Your task to perform on an android device: Open privacy settings Image 0: 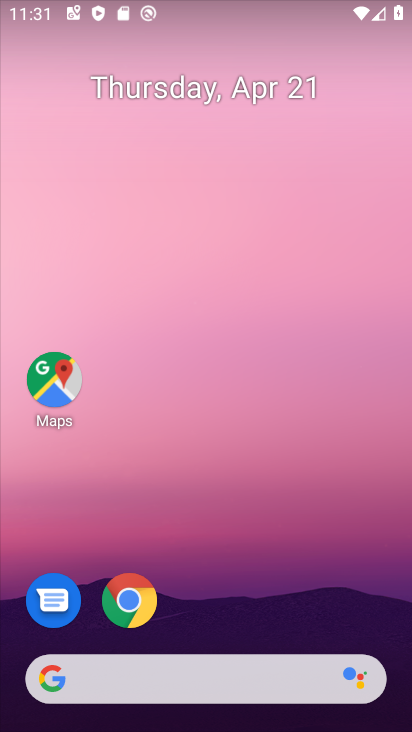
Step 0: drag from (214, 592) to (305, 17)
Your task to perform on an android device: Open privacy settings Image 1: 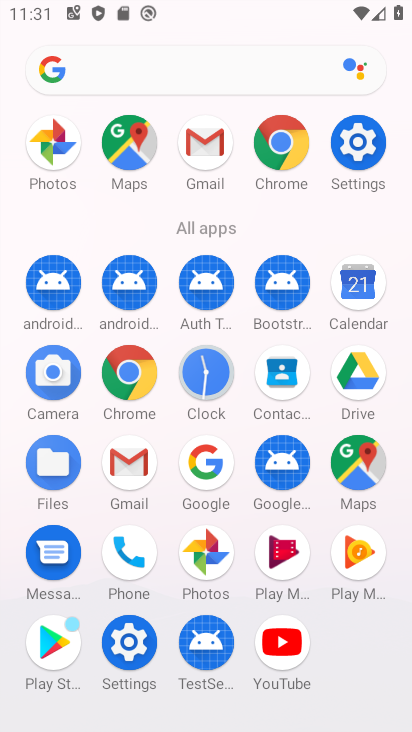
Step 1: click (135, 641)
Your task to perform on an android device: Open privacy settings Image 2: 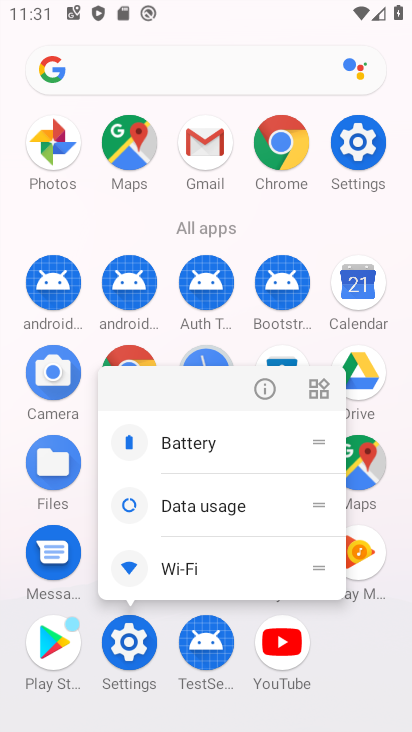
Step 2: click (132, 645)
Your task to perform on an android device: Open privacy settings Image 3: 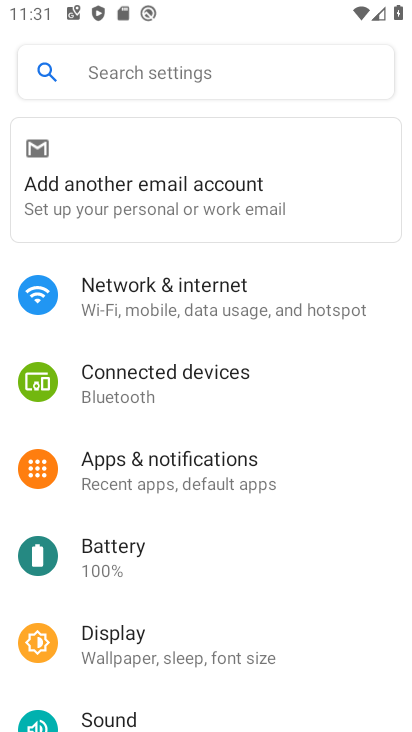
Step 3: drag from (202, 562) to (287, 175)
Your task to perform on an android device: Open privacy settings Image 4: 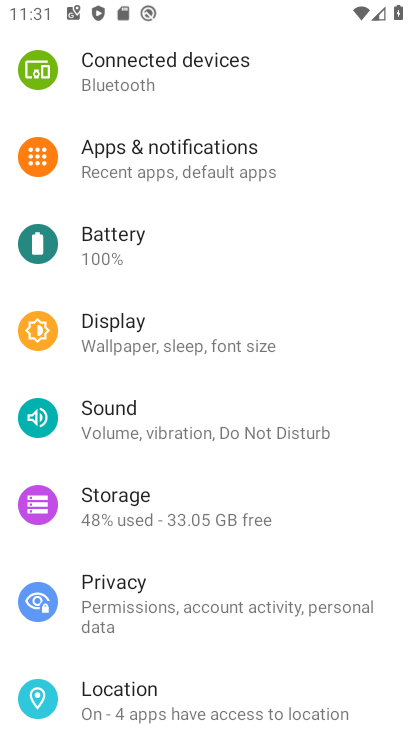
Step 4: click (157, 577)
Your task to perform on an android device: Open privacy settings Image 5: 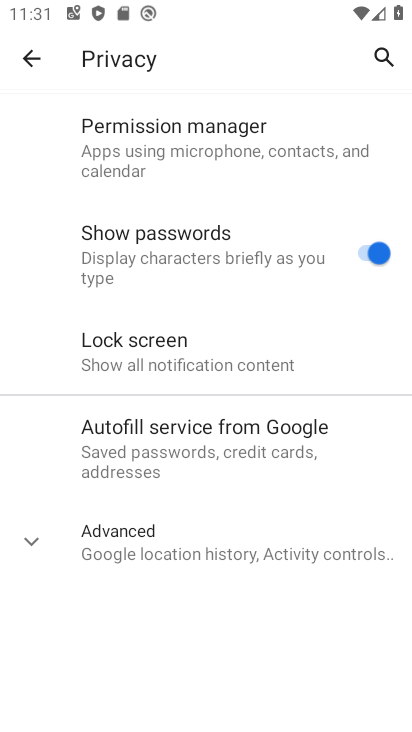
Step 5: task complete